Your task to perform on an android device: Show me popular games on the Play Store Image 0: 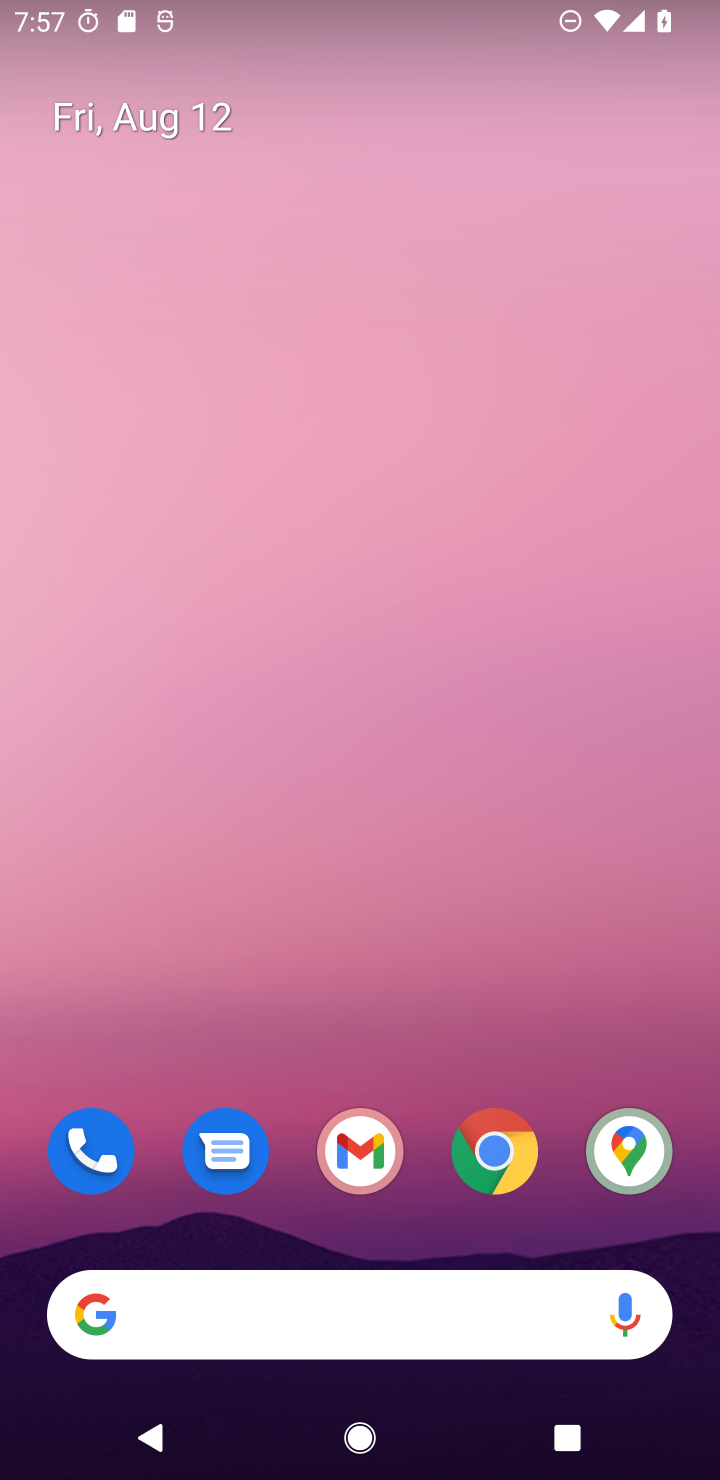
Step 0: drag from (403, 881) to (430, 82)
Your task to perform on an android device: Show me popular games on the Play Store Image 1: 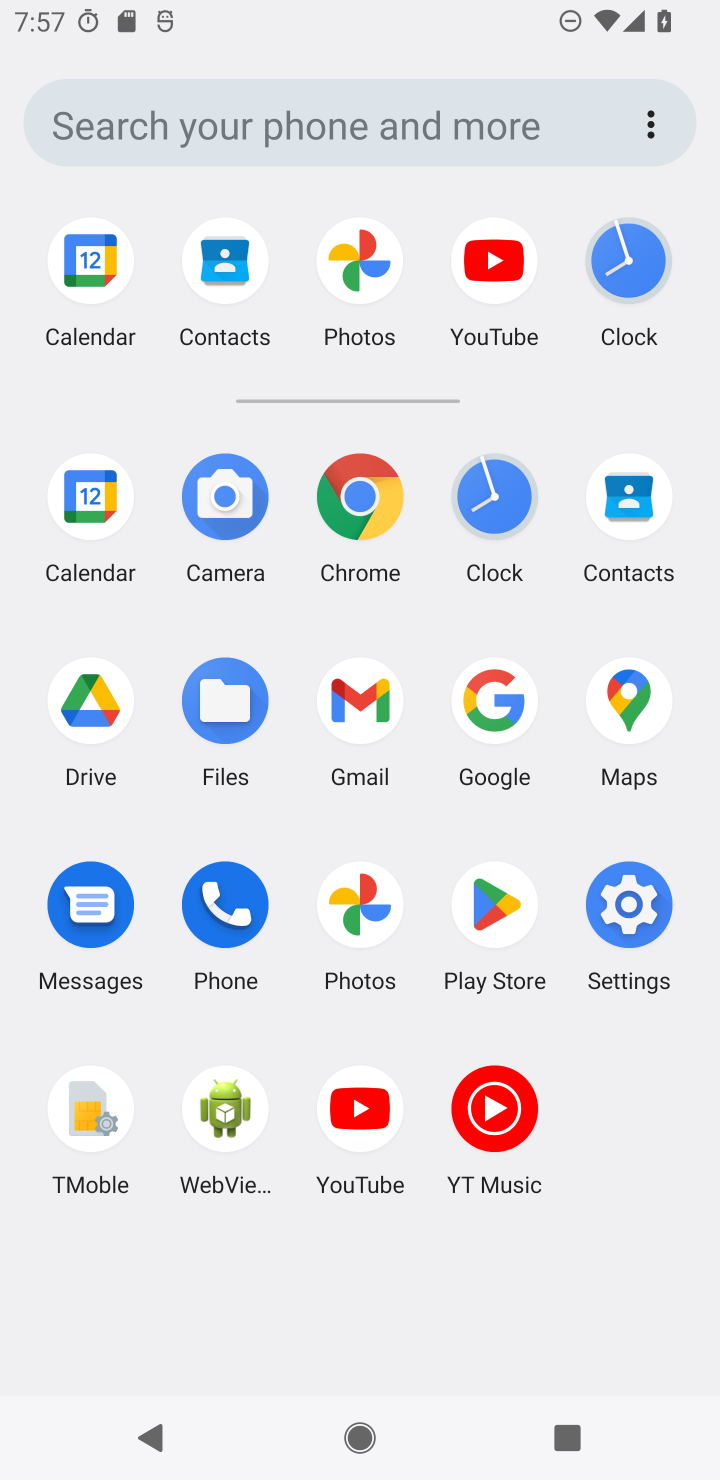
Step 1: click (491, 898)
Your task to perform on an android device: Show me popular games on the Play Store Image 2: 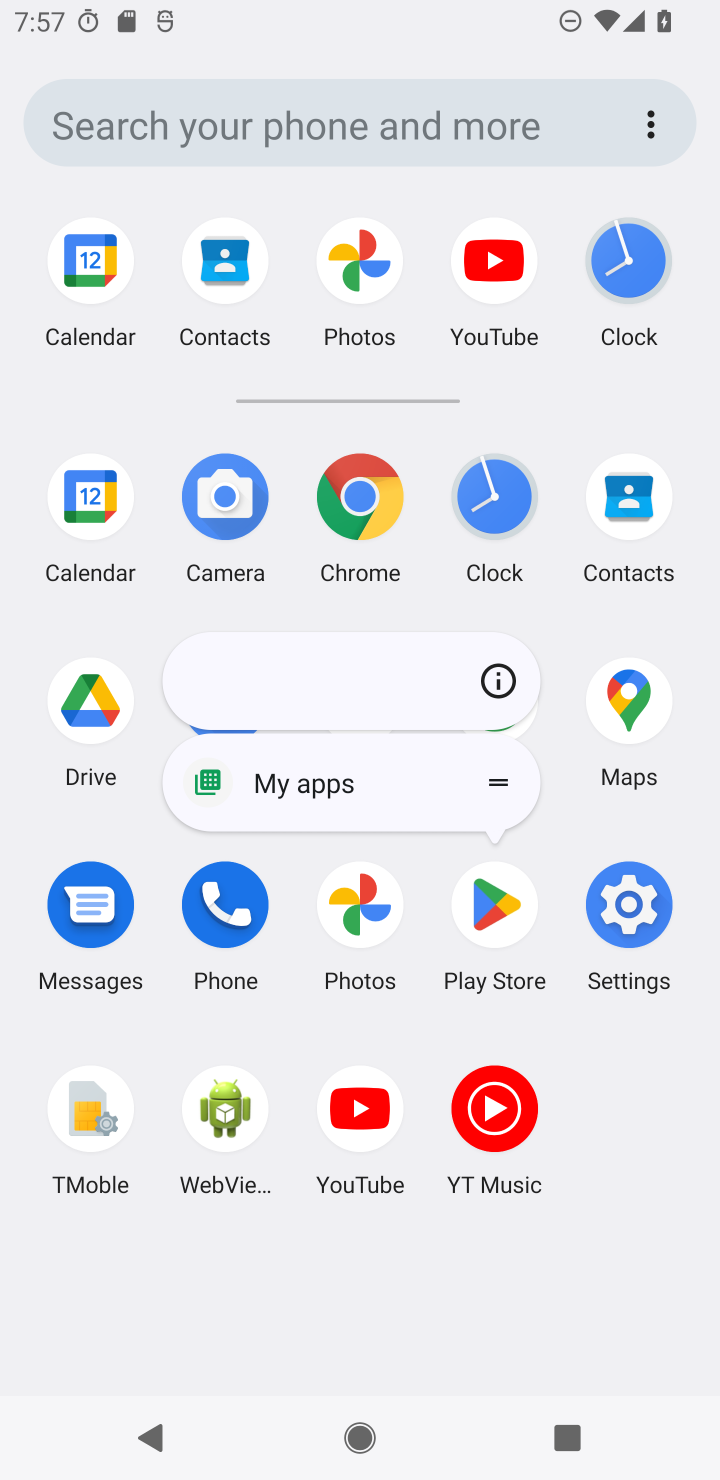
Step 2: click (491, 898)
Your task to perform on an android device: Show me popular games on the Play Store Image 3: 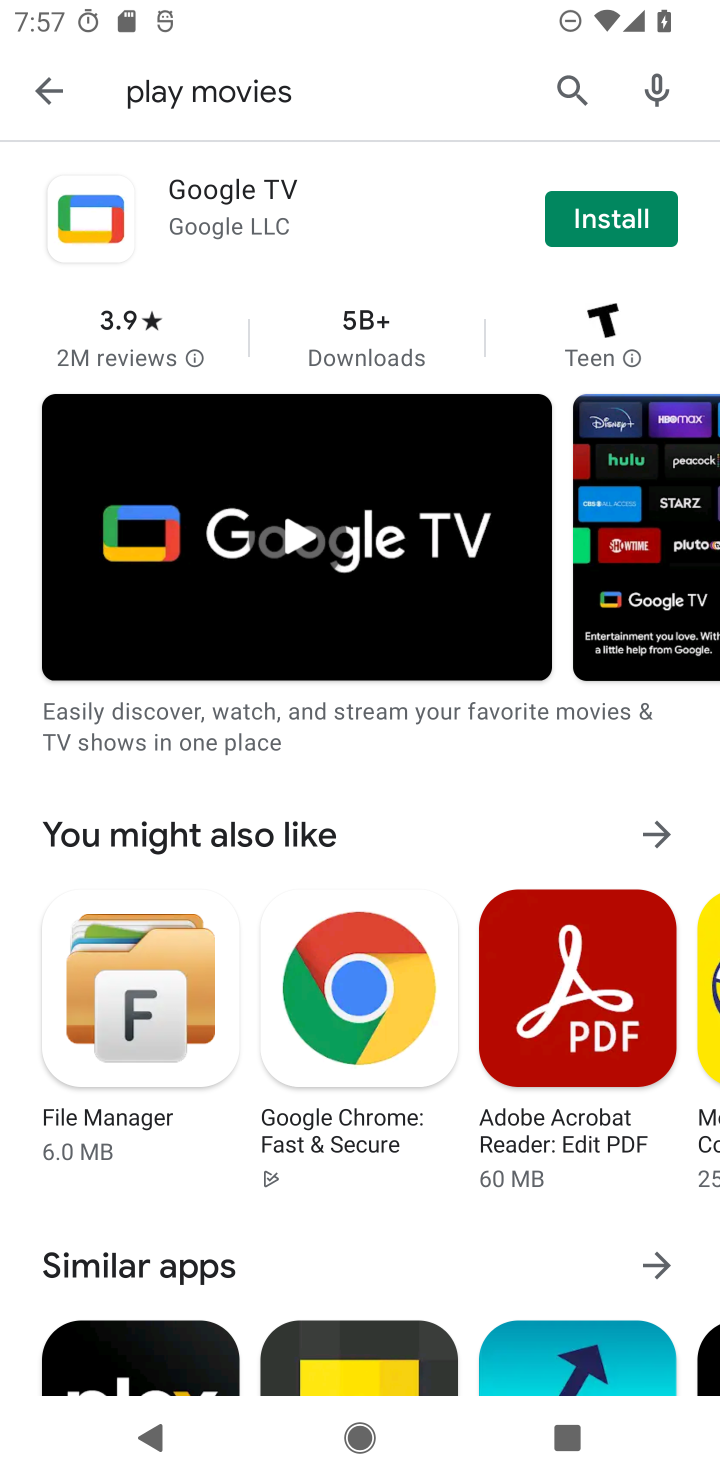
Step 3: click (37, 90)
Your task to perform on an android device: Show me popular games on the Play Store Image 4: 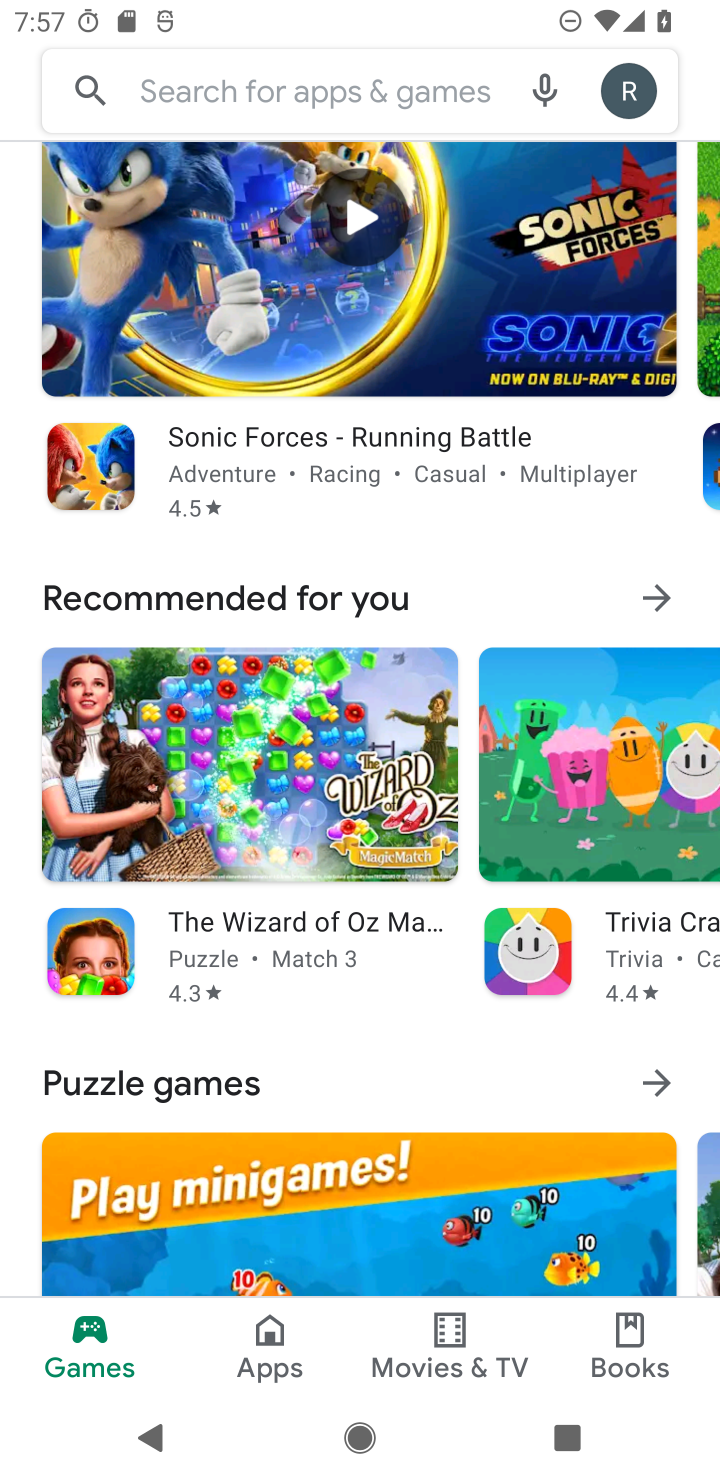
Step 4: task complete